Your task to perform on an android device: Open location settings Image 0: 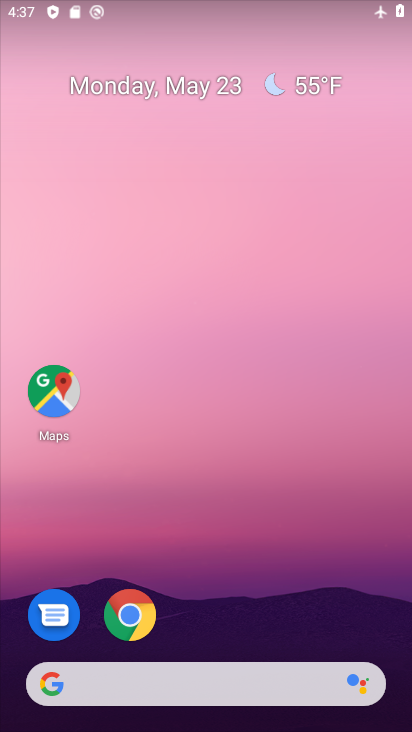
Step 0: drag from (374, 610) to (388, 194)
Your task to perform on an android device: Open location settings Image 1: 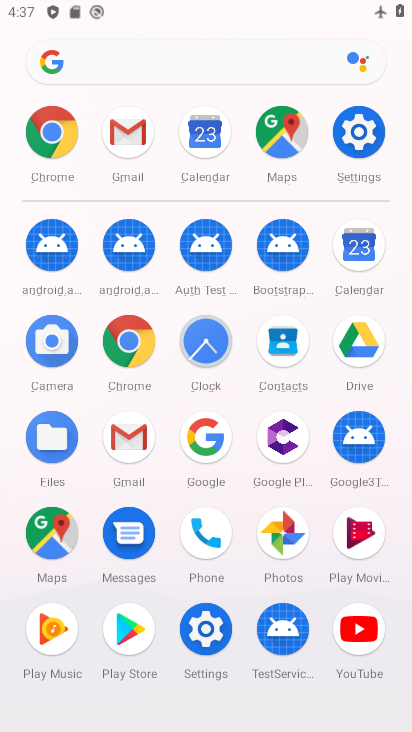
Step 1: click (209, 647)
Your task to perform on an android device: Open location settings Image 2: 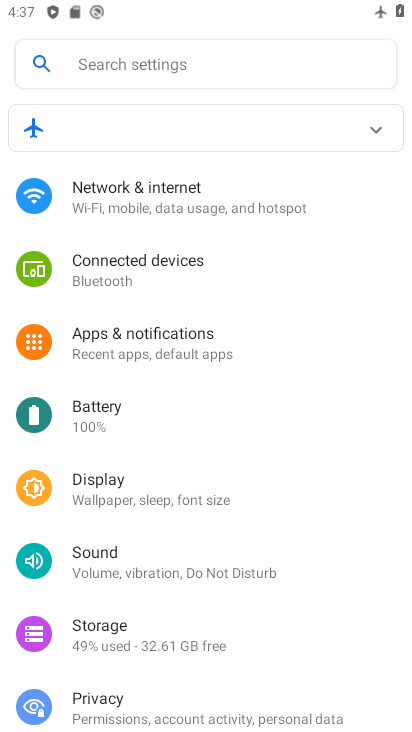
Step 2: drag from (299, 650) to (317, 524)
Your task to perform on an android device: Open location settings Image 3: 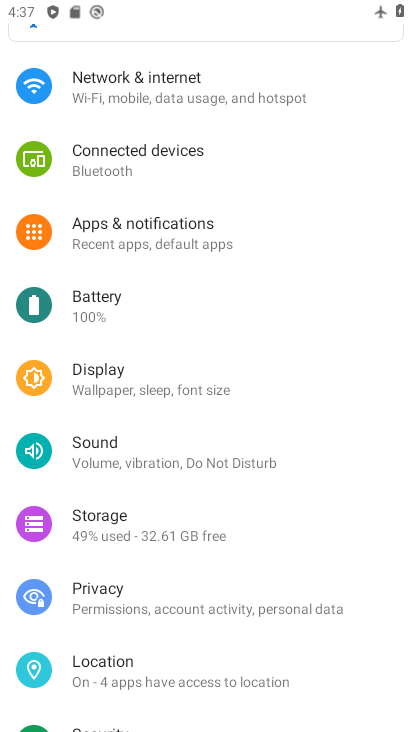
Step 3: drag from (348, 672) to (362, 570)
Your task to perform on an android device: Open location settings Image 4: 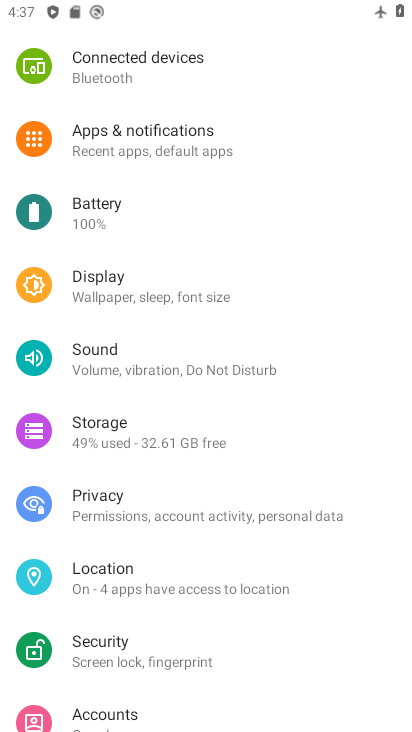
Step 4: drag from (360, 666) to (365, 541)
Your task to perform on an android device: Open location settings Image 5: 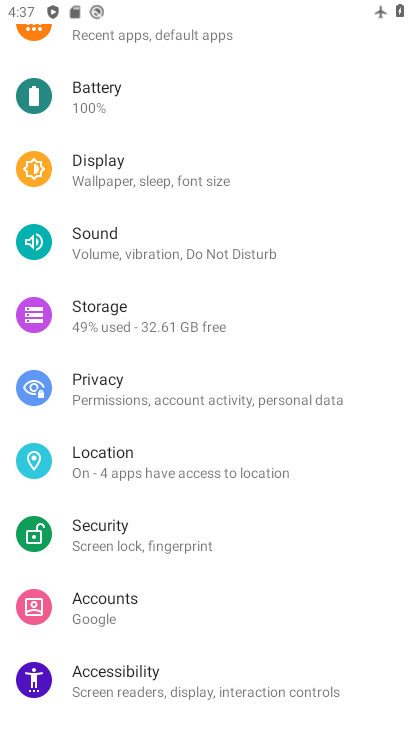
Step 5: drag from (352, 615) to (351, 519)
Your task to perform on an android device: Open location settings Image 6: 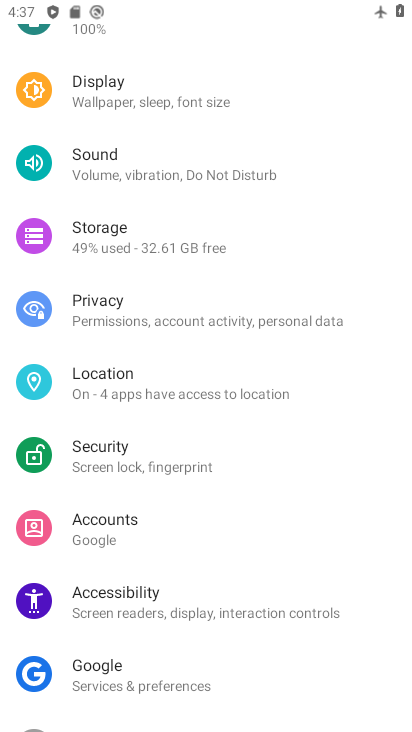
Step 6: drag from (358, 662) to (361, 534)
Your task to perform on an android device: Open location settings Image 7: 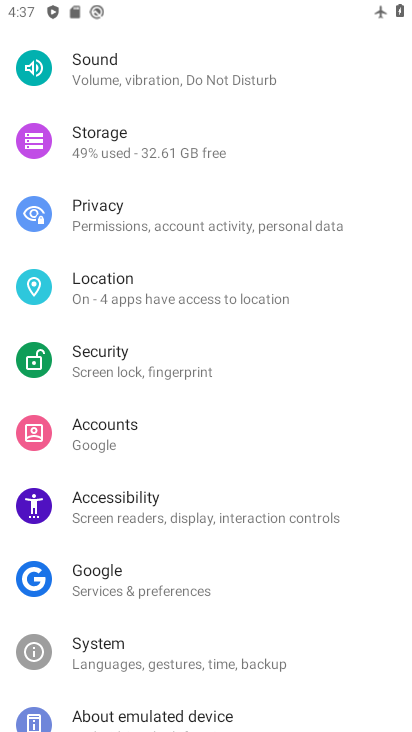
Step 7: drag from (351, 377) to (337, 496)
Your task to perform on an android device: Open location settings Image 8: 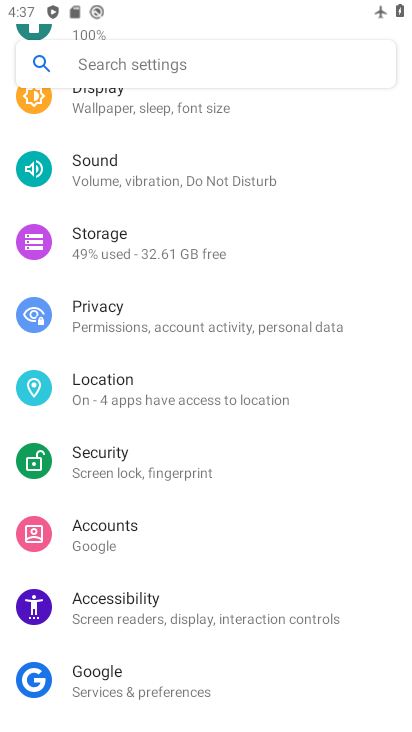
Step 8: drag from (337, 343) to (325, 463)
Your task to perform on an android device: Open location settings Image 9: 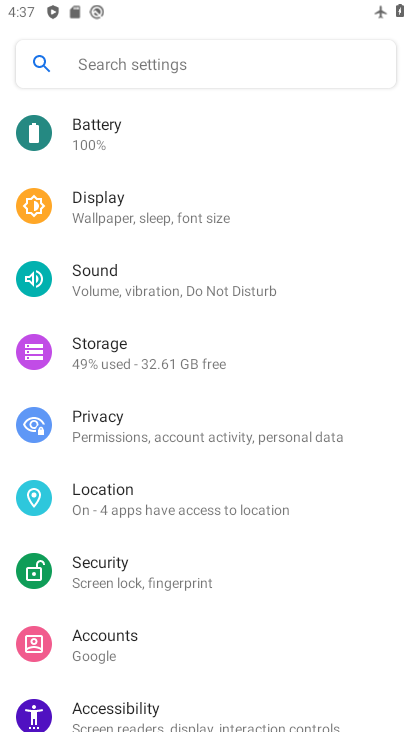
Step 9: drag from (346, 309) to (331, 468)
Your task to perform on an android device: Open location settings Image 10: 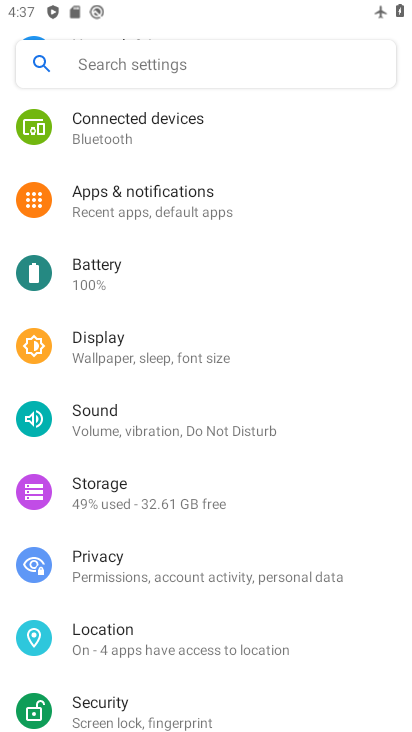
Step 10: drag from (340, 288) to (319, 436)
Your task to perform on an android device: Open location settings Image 11: 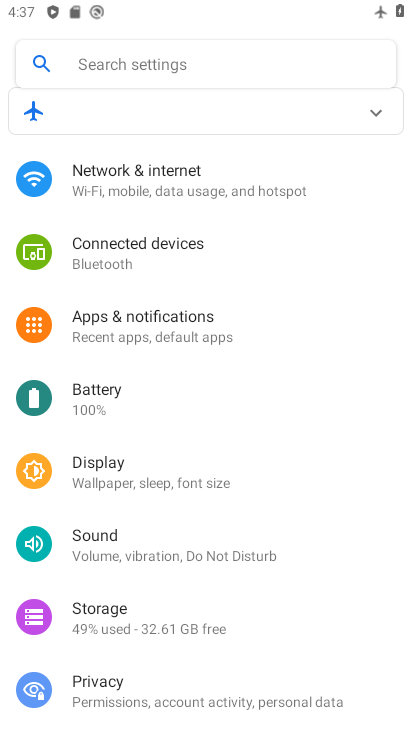
Step 11: drag from (334, 243) to (315, 395)
Your task to perform on an android device: Open location settings Image 12: 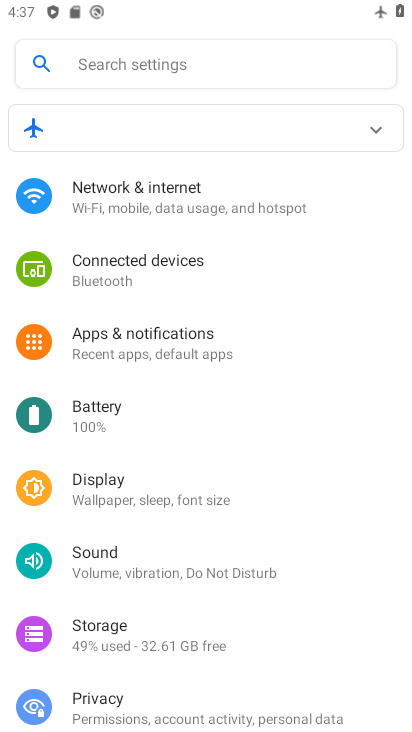
Step 12: drag from (318, 586) to (322, 420)
Your task to perform on an android device: Open location settings Image 13: 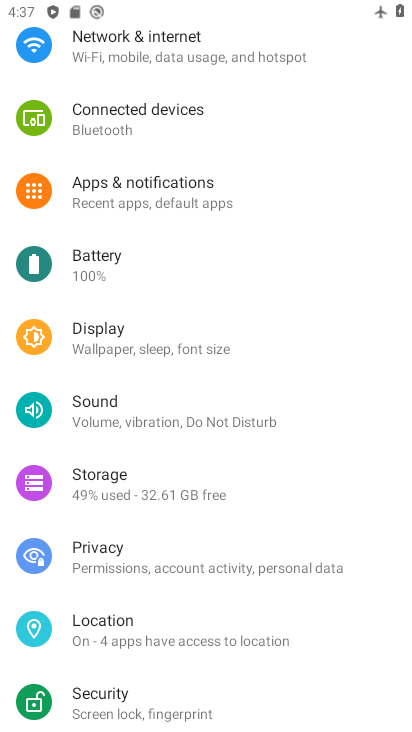
Step 13: drag from (329, 652) to (340, 541)
Your task to perform on an android device: Open location settings Image 14: 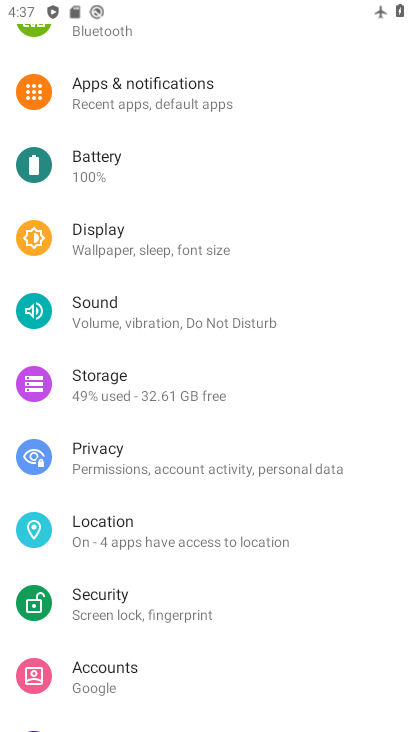
Step 14: click (267, 539)
Your task to perform on an android device: Open location settings Image 15: 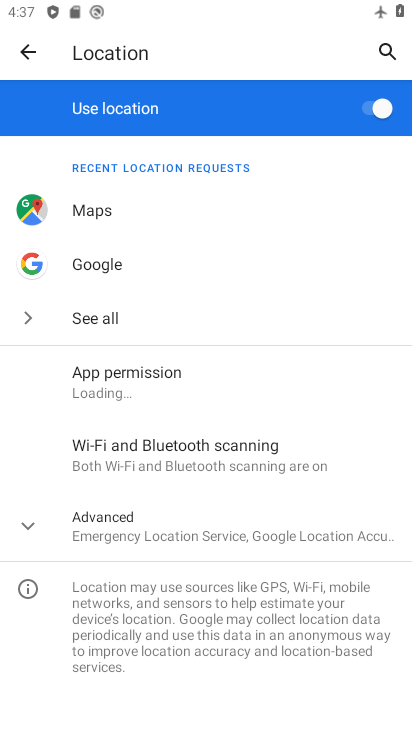
Step 15: task complete